Your task to perform on an android device: change keyboard looks Image 0: 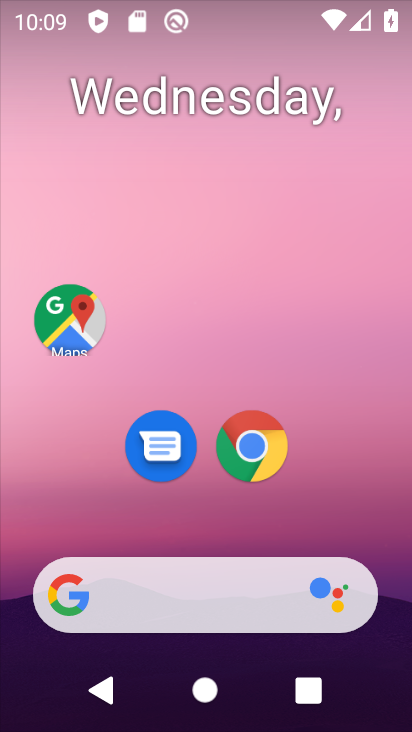
Step 0: drag from (337, 521) to (331, 144)
Your task to perform on an android device: change keyboard looks Image 1: 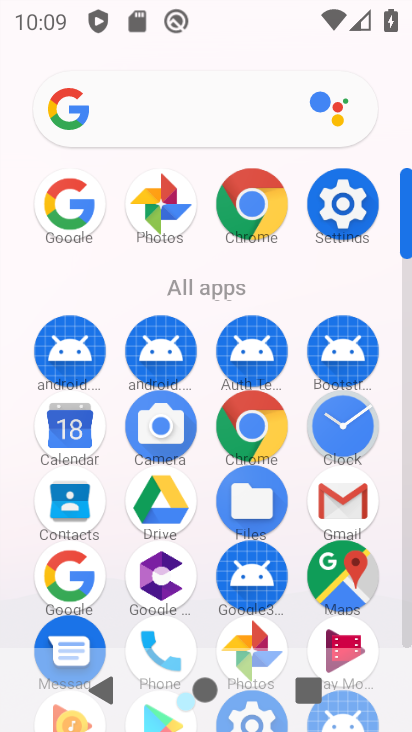
Step 1: click (327, 236)
Your task to perform on an android device: change keyboard looks Image 2: 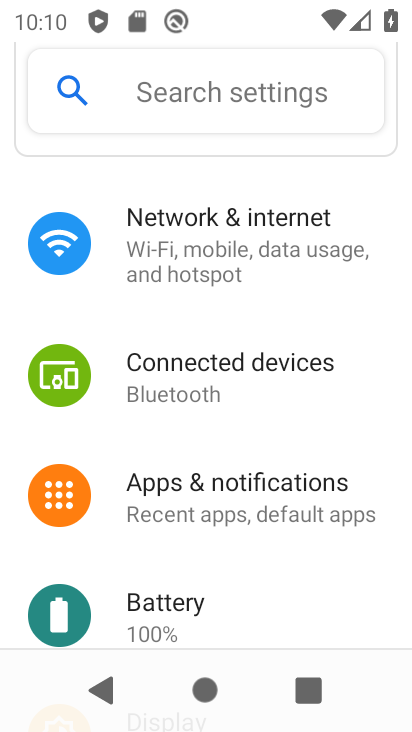
Step 2: drag from (260, 553) to (270, 249)
Your task to perform on an android device: change keyboard looks Image 3: 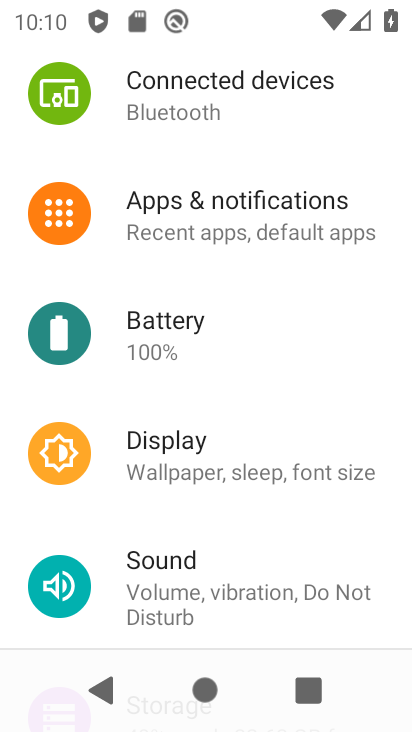
Step 3: drag from (276, 530) to (319, 252)
Your task to perform on an android device: change keyboard looks Image 4: 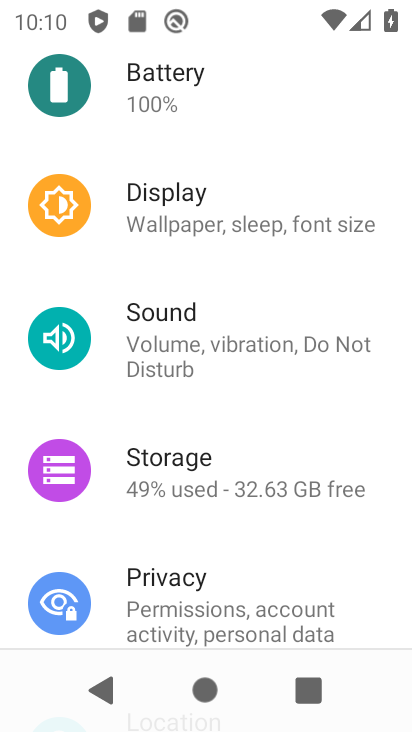
Step 4: drag from (152, 580) to (163, 348)
Your task to perform on an android device: change keyboard looks Image 5: 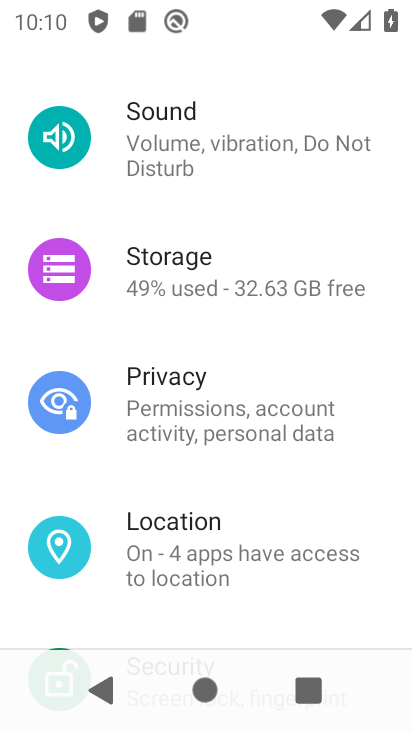
Step 5: drag from (86, 554) to (147, 342)
Your task to perform on an android device: change keyboard looks Image 6: 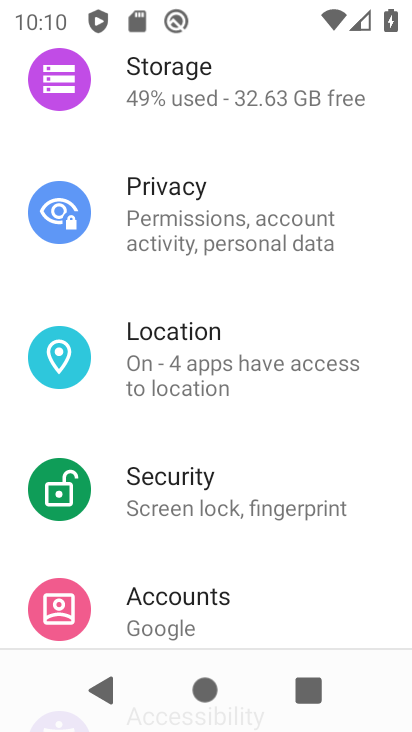
Step 6: drag from (113, 580) to (202, 162)
Your task to perform on an android device: change keyboard looks Image 7: 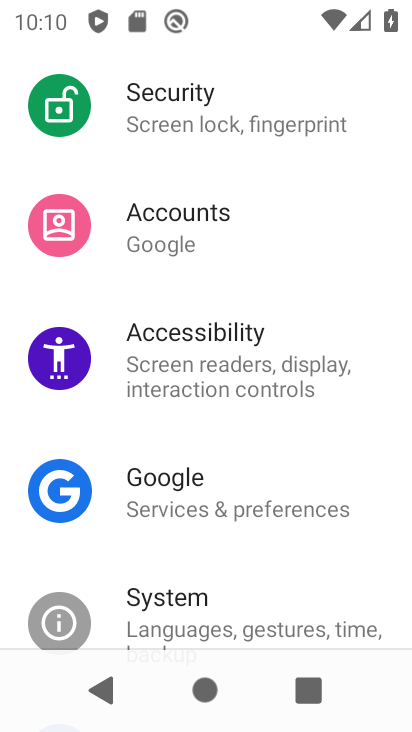
Step 7: click (239, 621)
Your task to perform on an android device: change keyboard looks Image 8: 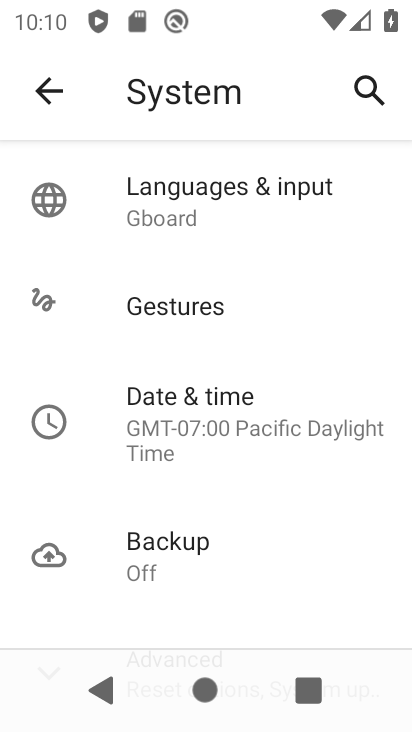
Step 8: drag from (227, 505) to (268, 282)
Your task to perform on an android device: change keyboard looks Image 9: 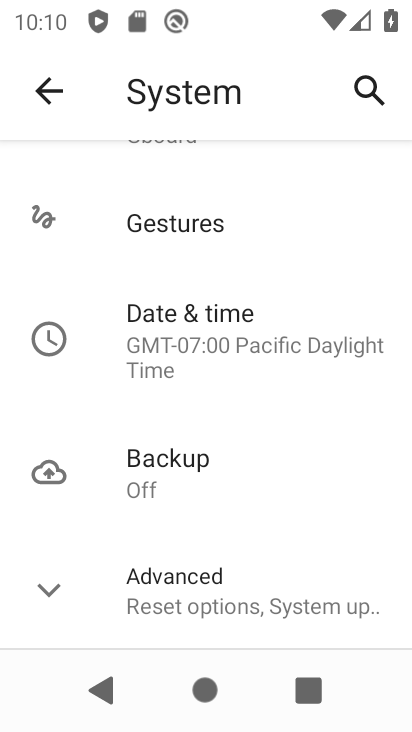
Step 9: drag from (251, 238) to (249, 423)
Your task to perform on an android device: change keyboard looks Image 10: 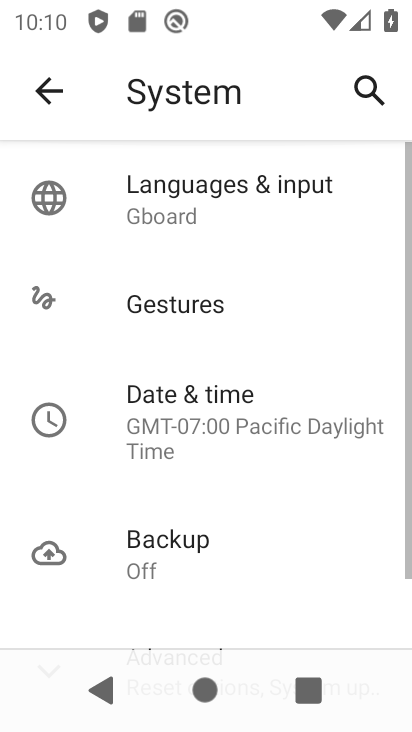
Step 10: click (201, 217)
Your task to perform on an android device: change keyboard looks Image 11: 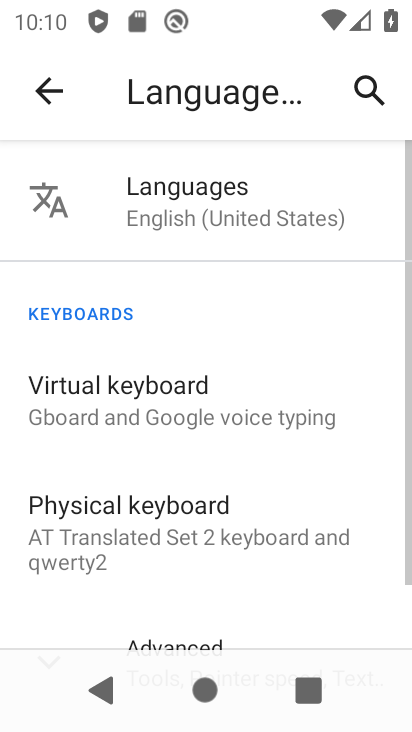
Step 11: click (158, 411)
Your task to perform on an android device: change keyboard looks Image 12: 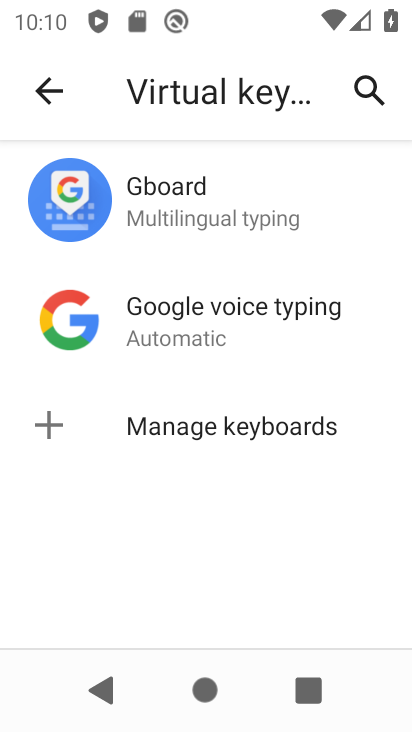
Step 12: click (188, 215)
Your task to perform on an android device: change keyboard looks Image 13: 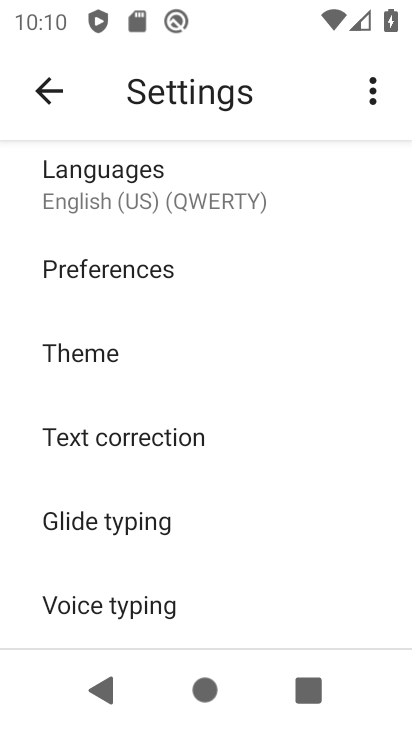
Step 13: click (152, 358)
Your task to perform on an android device: change keyboard looks Image 14: 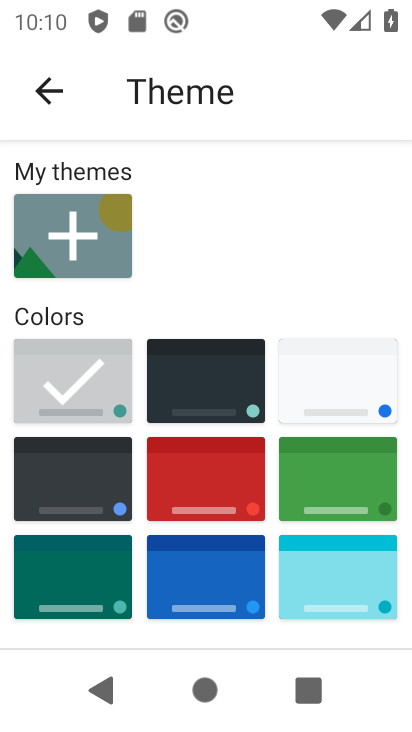
Step 14: click (187, 400)
Your task to perform on an android device: change keyboard looks Image 15: 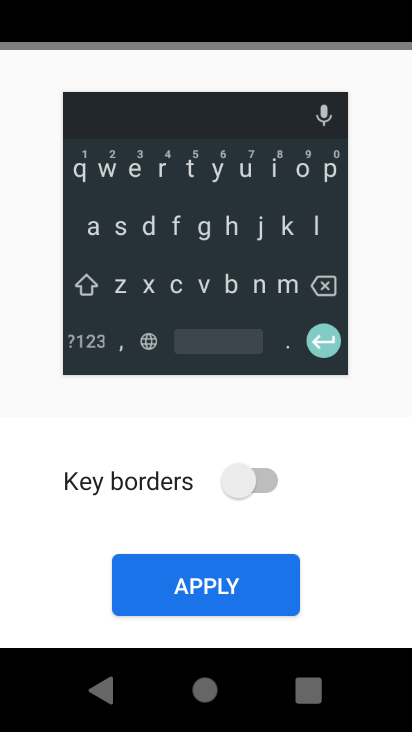
Step 15: click (232, 584)
Your task to perform on an android device: change keyboard looks Image 16: 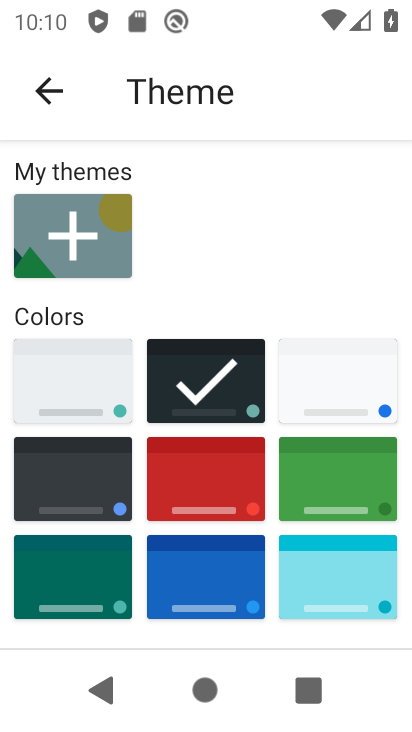
Step 16: task complete